Your task to perform on an android device: Open settings on Google Maps Image 0: 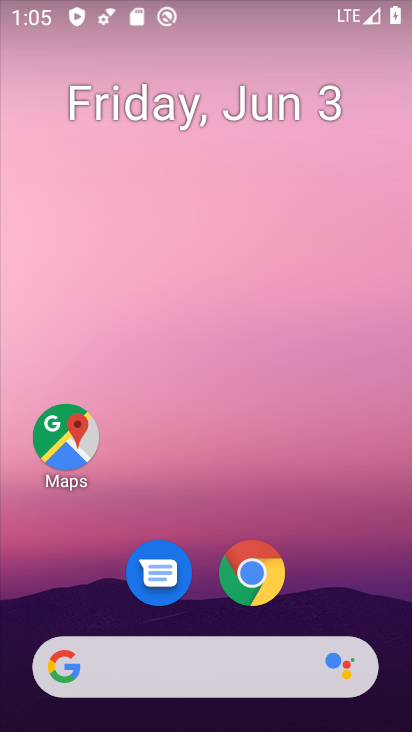
Step 0: drag from (373, 596) to (364, 146)
Your task to perform on an android device: Open settings on Google Maps Image 1: 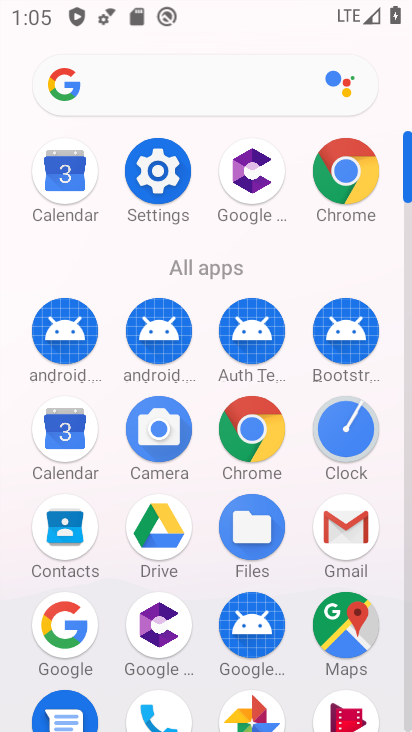
Step 1: click (362, 627)
Your task to perform on an android device: Open settings on Google Maps Image 2: 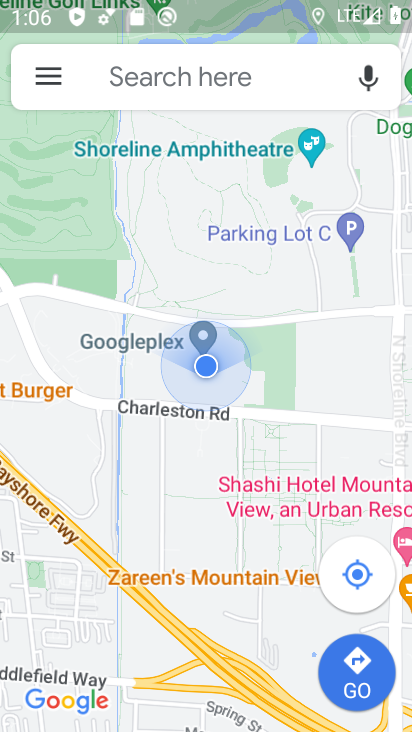
Step 2: click (44, 66)
Your task to perform on an android device: Open settings on Google Maps Image 3: 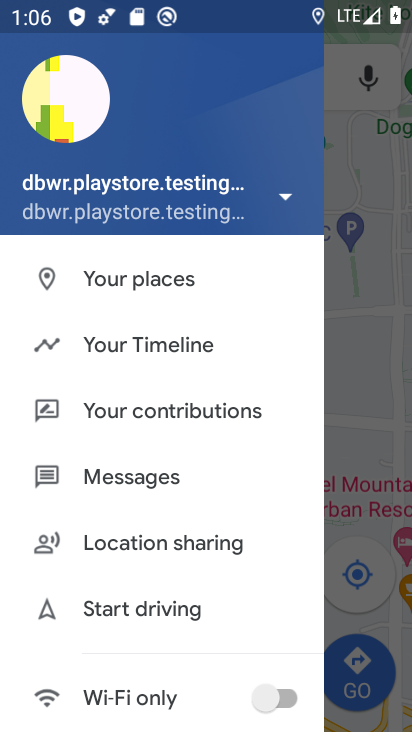
Step 3: drag from (268, 497) to (258, 401)
Your task to perform on an android device: Open settings on Google Maps Image 4: 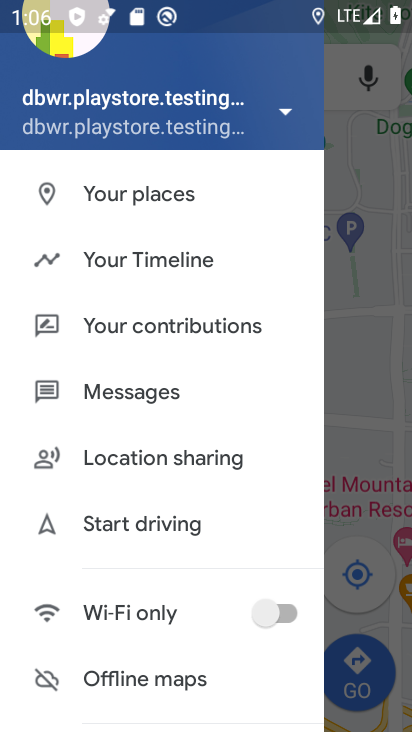
Step 4: drag from (265, 498) to (264, 440)
Your task to perform on an android device: Open settings on Google Maps Image 5: 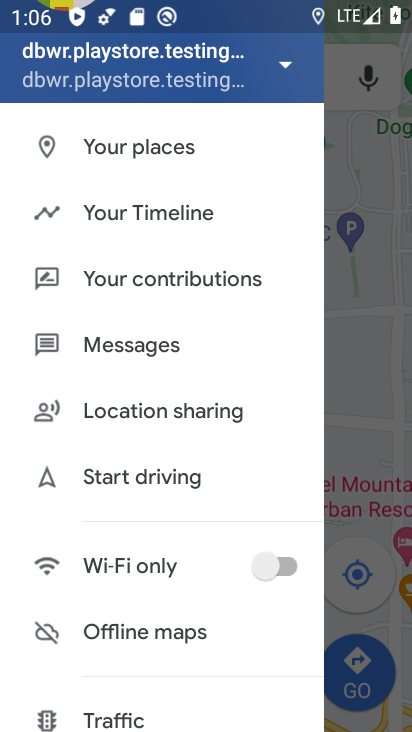
Step 5: drag from (227, 537) to (216, 404)
Your task to perform on an android device: Open settings on Google Maps Image 6: 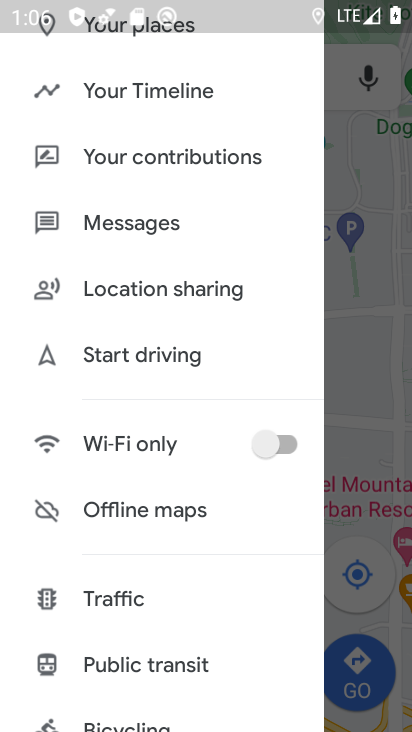
Step 6: drag from (223, 551) to (225, 412)
Your task to perform on an android device: Open settings on Google Maps Image 7: 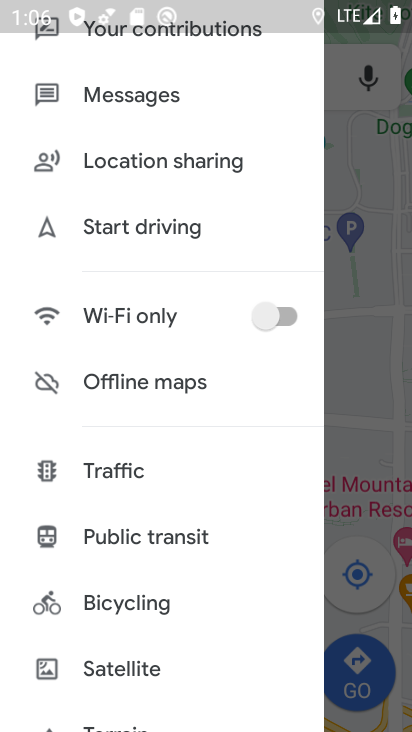
Step 7: drag from (229, 583) to (223, 462)
Your task to perform on an android device: Open settings on Google Maps Image 8: 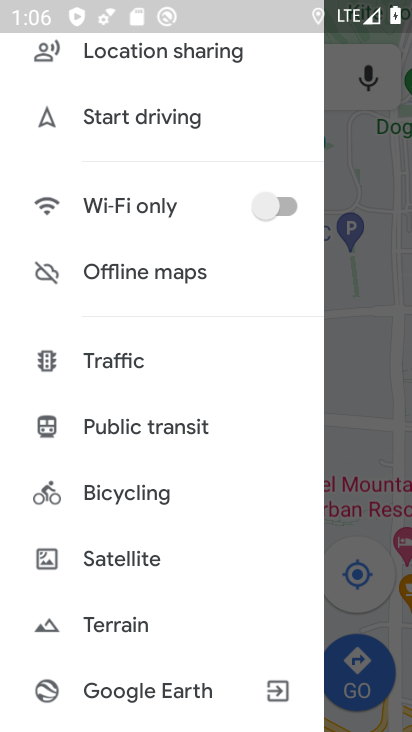
Step 8: drag from (221, 572) to (223, 494)
Your task to perform on an android device: Open settings on Google Maps Image 9: 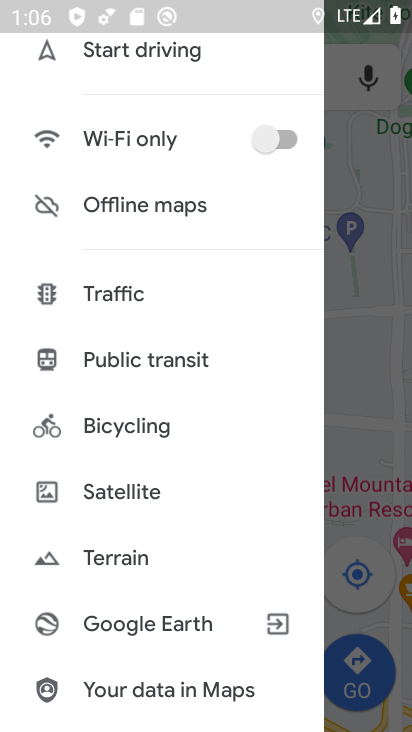
Step 9: drag from (221, 563) to (224, 468)
Your task to perform on an android device: Open settings on Google Maps Image 10: 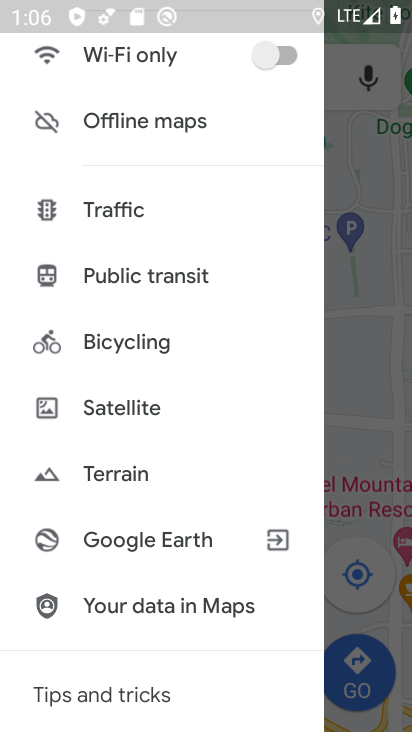
Step 10: drag from (224, 576) to (224, 507)
Your task to perform on an android device: Open settings on Google Maps Image 11: 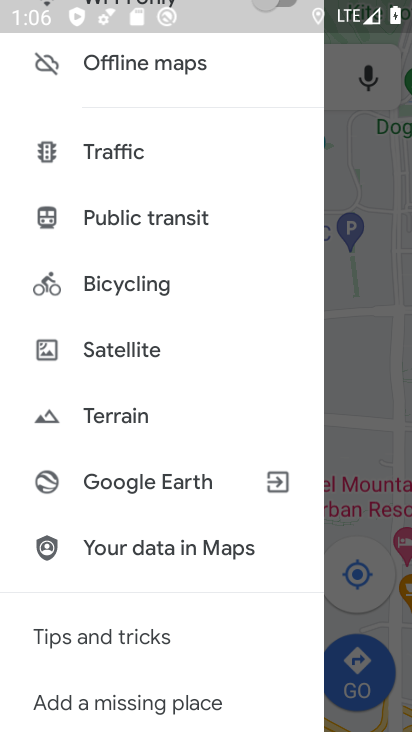
Step 11: drag from (210, 591) to (211, 405)
Your task to perform on an android device: Open settings on Google Maps Image 12: 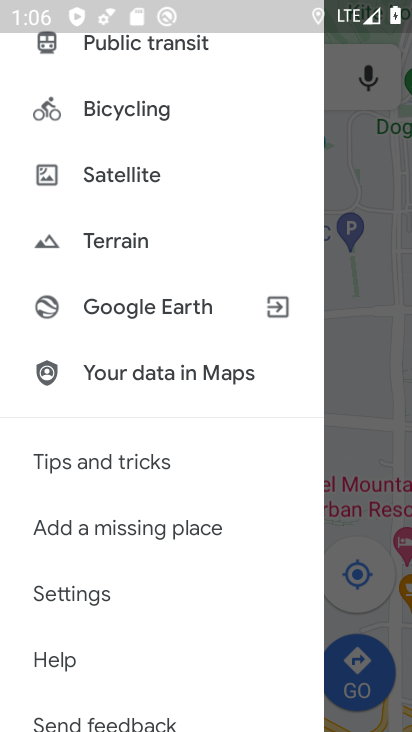
Step 12: drag from (227, 600) to (217, 517)
Your task to perform on an android device: Open settings on Google Maps Image 13: 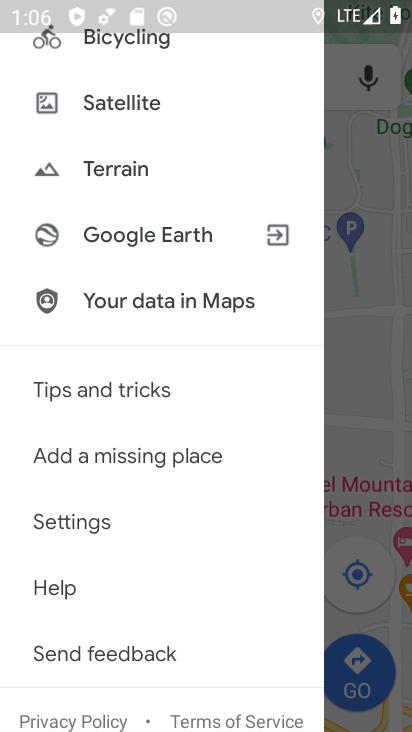
Step 13: click (103, 523)
Your task to perform on an android device: Open settings on Google Maps Image 14: 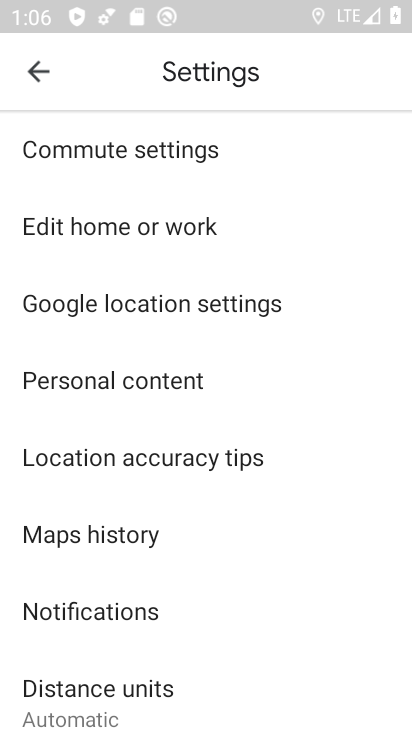
Step 14: drag from (270, 547) to (264, 441)
Your task to perform on an android device: Open settings on Google Maps Image 15: 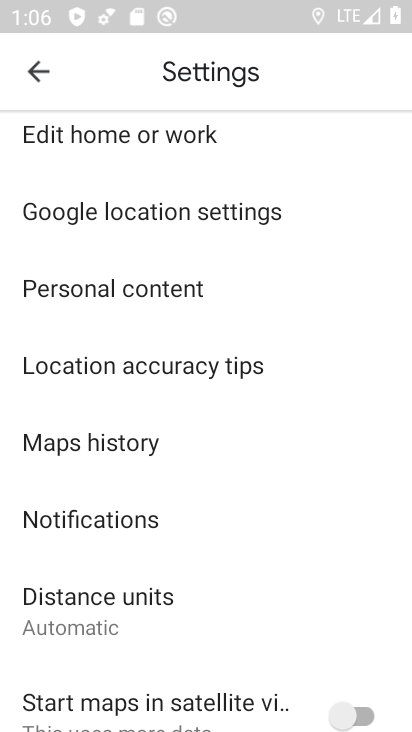
Step 15: click (274, 541)
Your task to perform on an android device: Open settings on Google Maps Image 16: 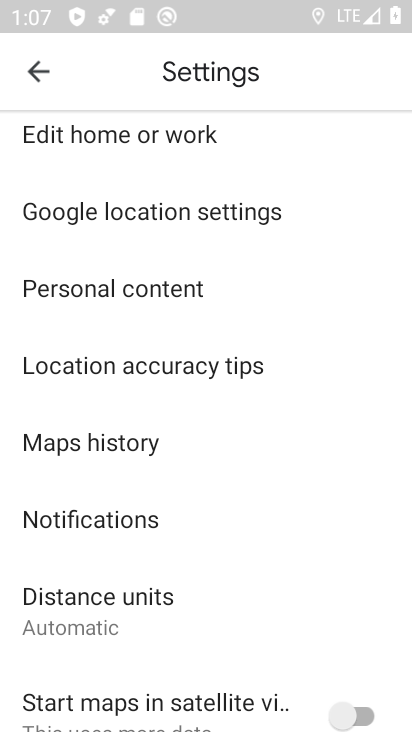
Step 16: task complete